Your task to perform on an android device: open a bookmark in the chrome app Image 0: 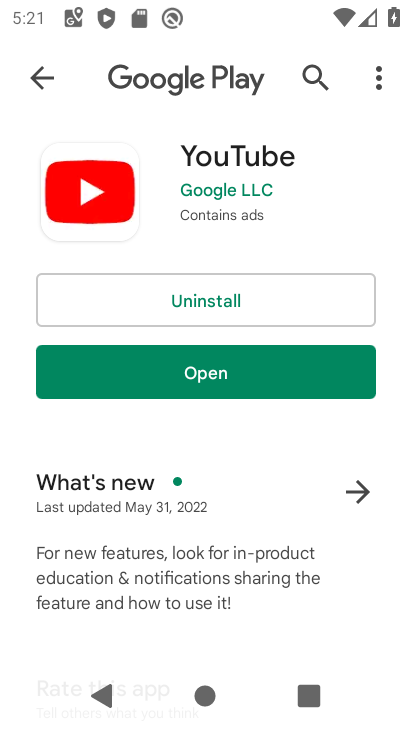
Step 0: press home button
Your task to perform on an android device: open a bookmark in the chrome app Image 1: 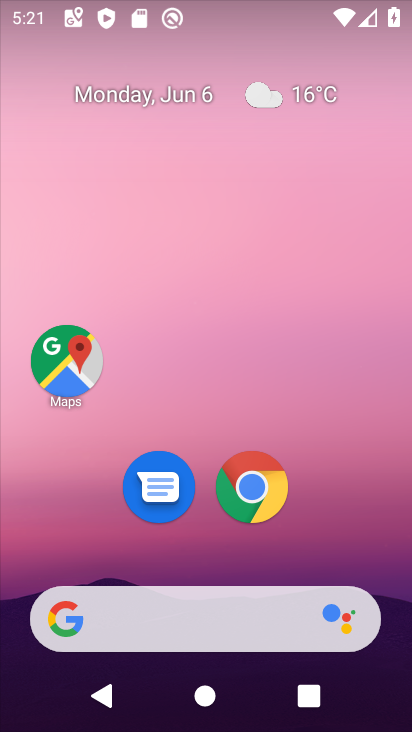
Step 1: click (259, 508)
Your task to perform on an android device: open a bookmark in the chrome app Image 2: 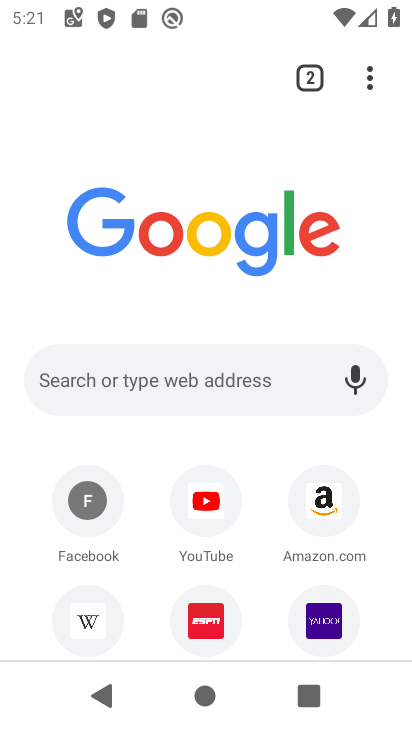
Step 2: click (365, 72)
Your task to perform on an android device: open a bookmark in the chrome app Image 3: 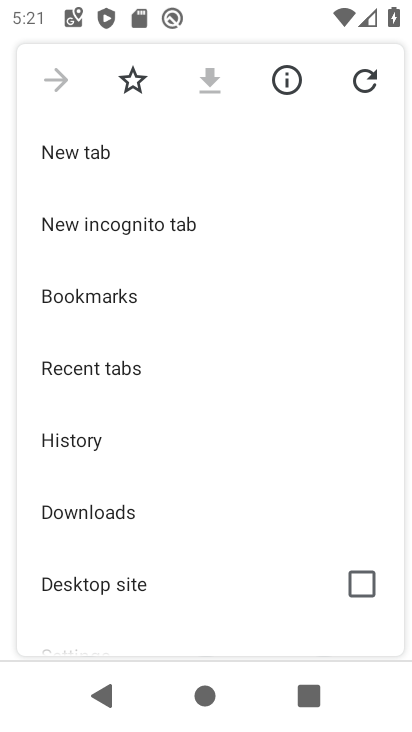
Step 3: click (141, 299)
Your task to perform on an android device: open a bookmark in the chrome app Image 4: 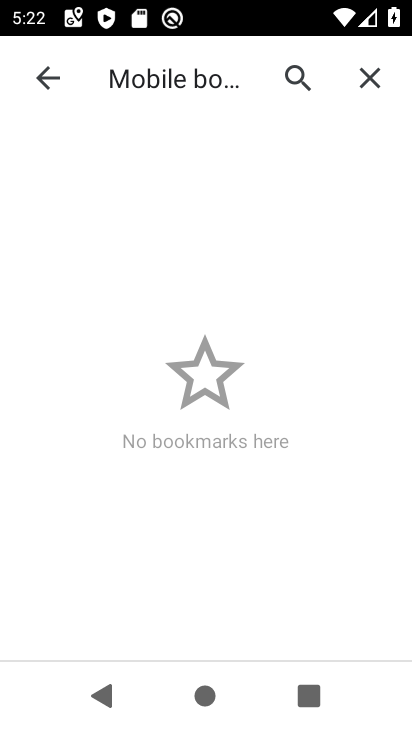
Step 4: task complete